Your task to perform on an android device: find snoozed emails in the gmail app Image 0: 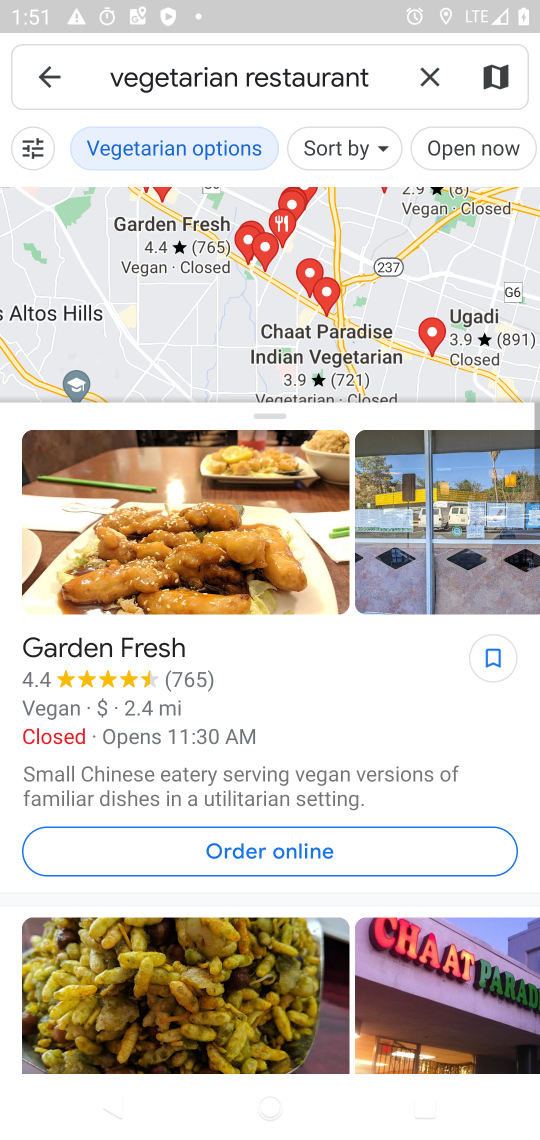
Step 0: press home button
Your task to perform on an android device: find snoozed emails in the gmail app Image 1: 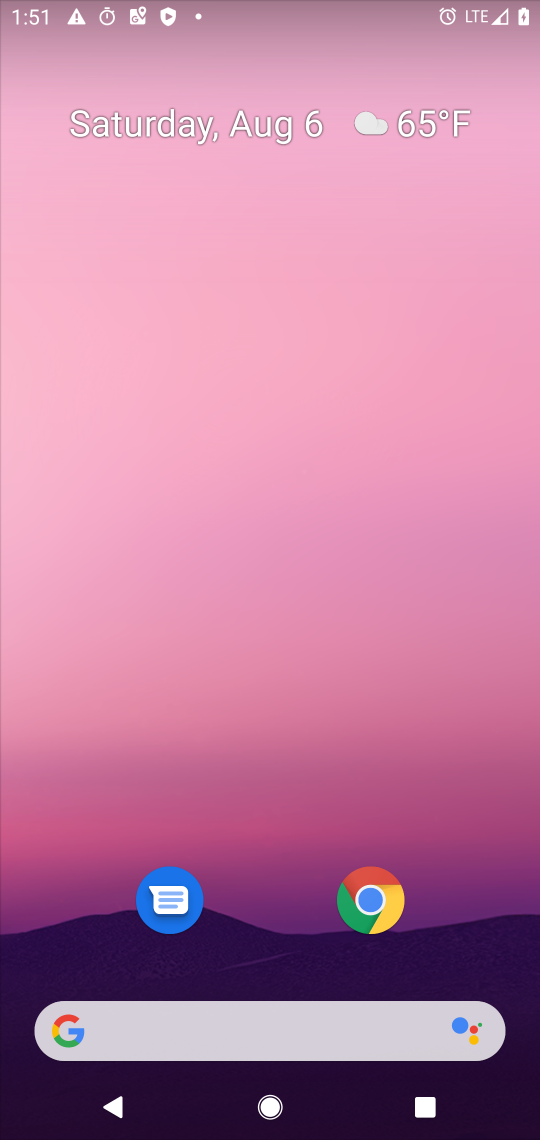
Step 1: drag from (267, 956) to (215, 66)
Your task to perform on an android device: find snoozed emails in the gmail app Image 2: 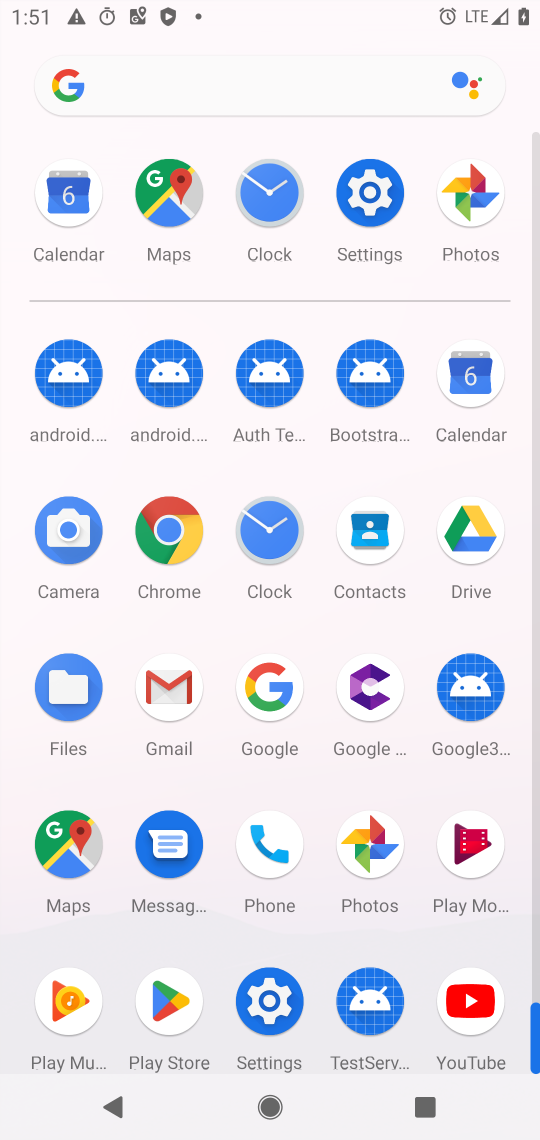
Step 2: click (160, 681)
Your task to perform on an android device: find snoozed emails in the gmail app Image 3: 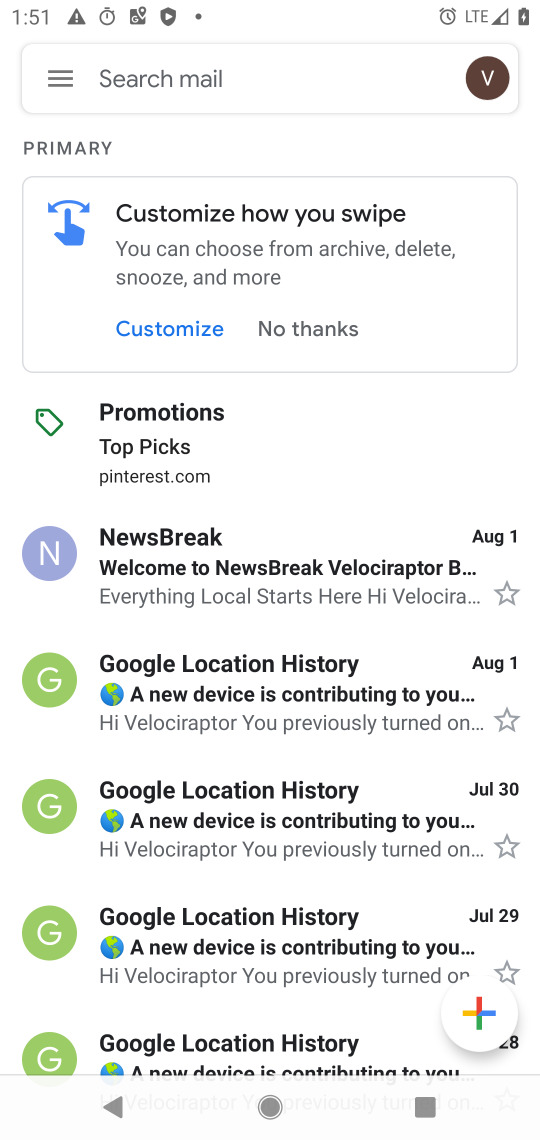
Step 3: click (48, 75)
Your task to perform on an android device: find snoozed emails in the gmail app Image 4: 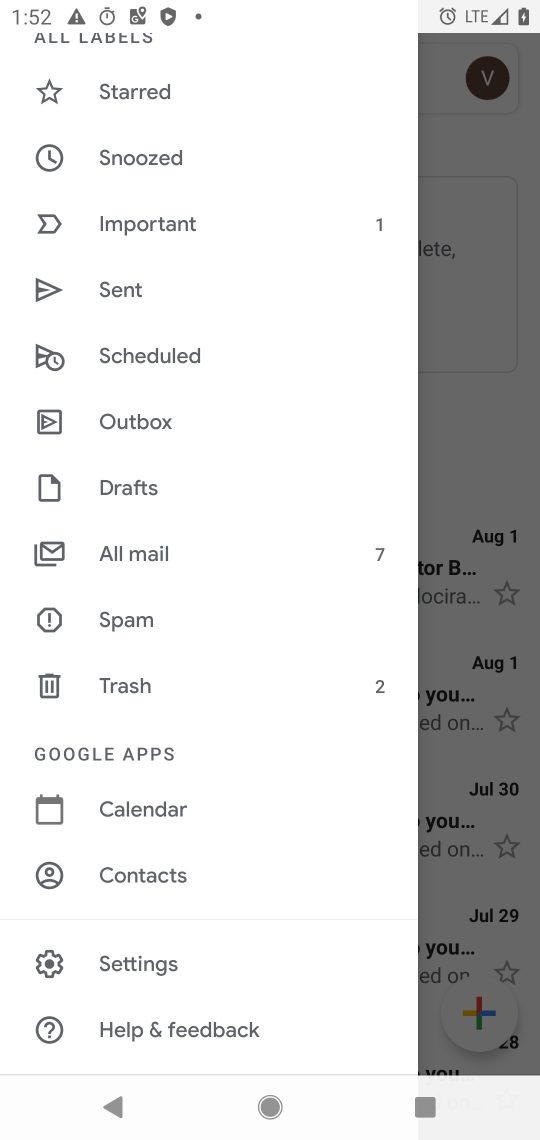
Step 4: click (154, 154)
Your task to perform on an android device: find snoozed emails in the gmail app Image 5: 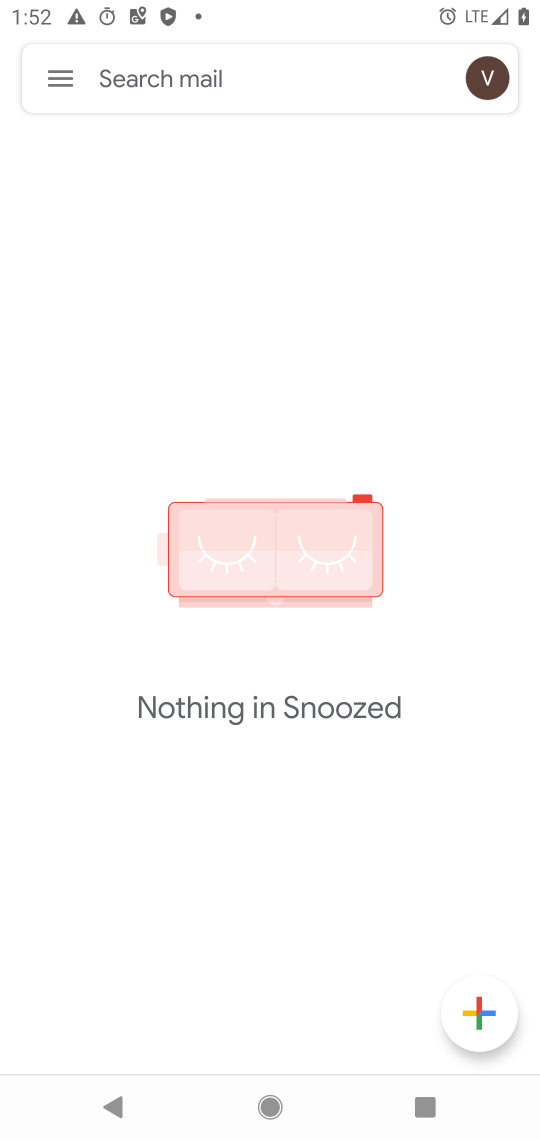
Step 5: task complete